Your task to perform on an android device: Clear all items from cart on amazon. Image 0: 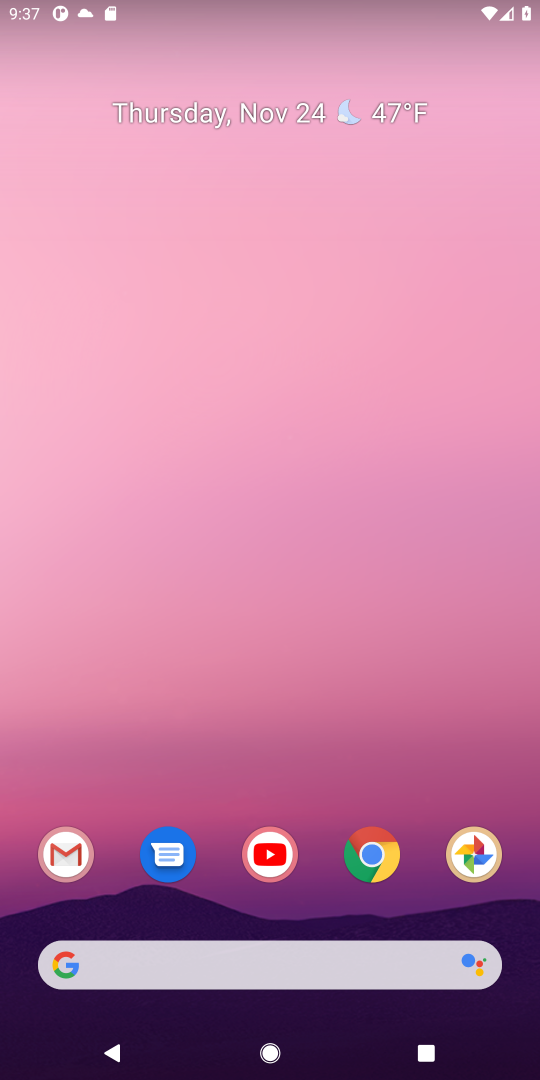
Step 0: click (372, 865)
Your task to perform on an android device: Clear all items from cart on amazon. Image 1: 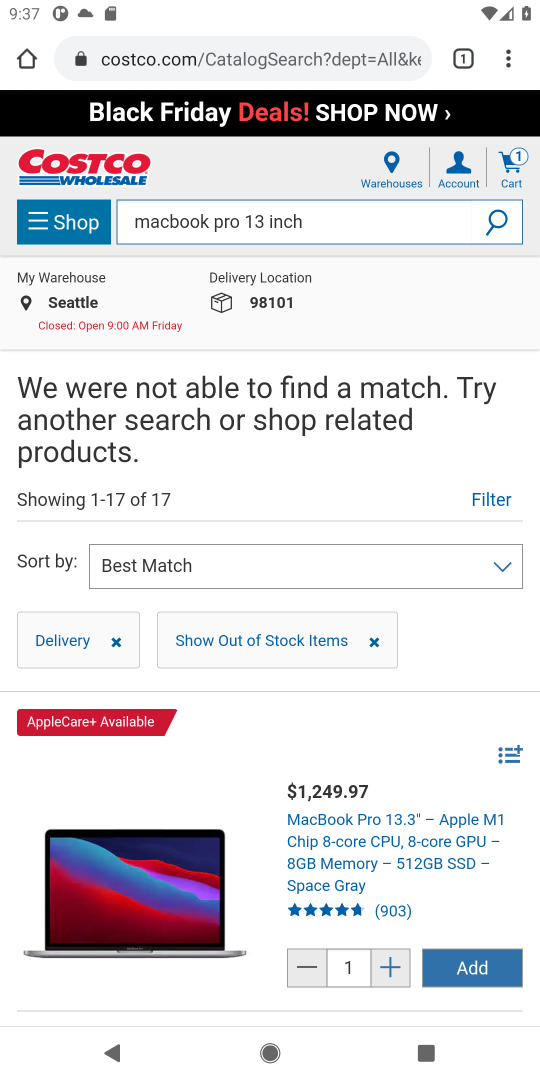
Step 1: click (214, 64)
Your task to perform on an android device: Clear all items from cart on amazon. Image 2: 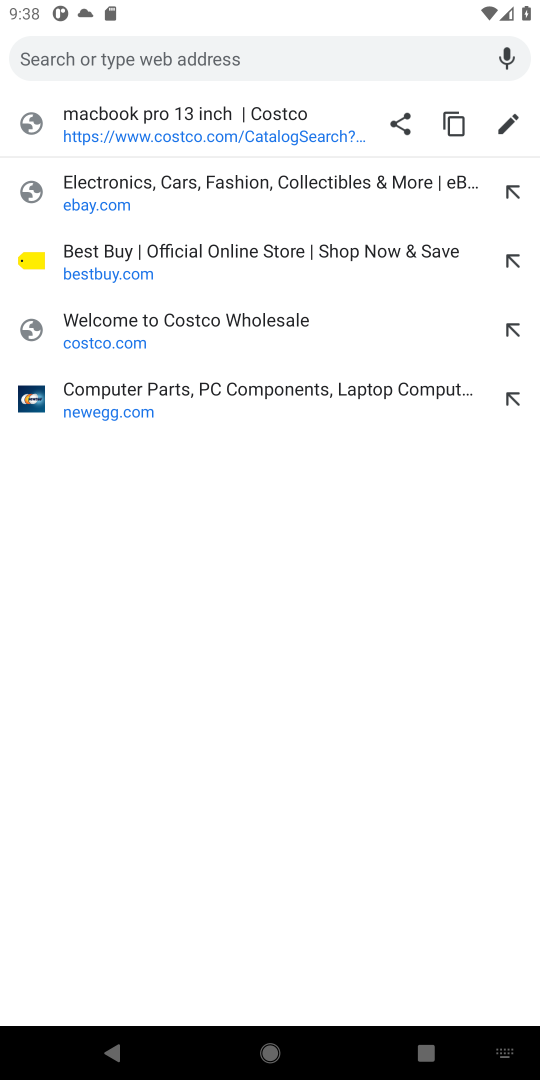
Step 2: type "amazon.com"
Your task to perform on an android device: Clear all items from cart on amazon. Image 3: 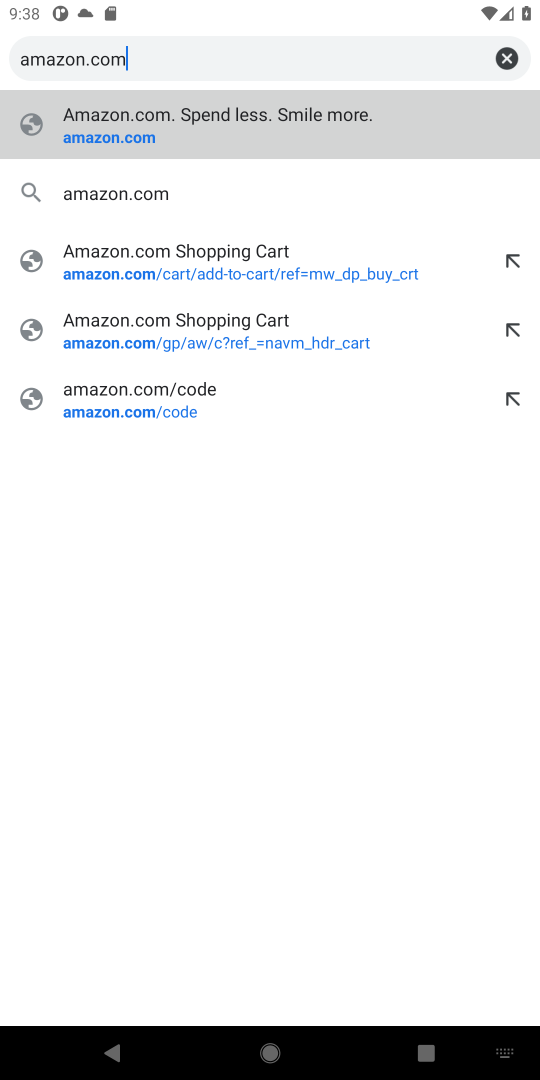
Step 3: click (102, 129)
Your task to perform on an android device: Clear all items from cart on amazon. Image 4: 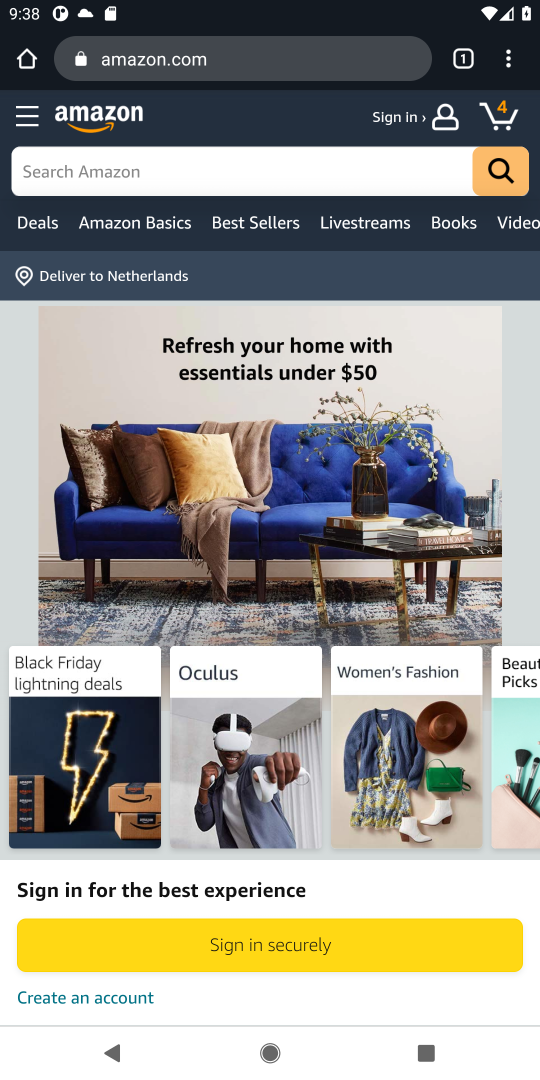
Step 4: click (499, 120)
Your task to perform on an android device: Clear all items from cart on amazon. Image 5: 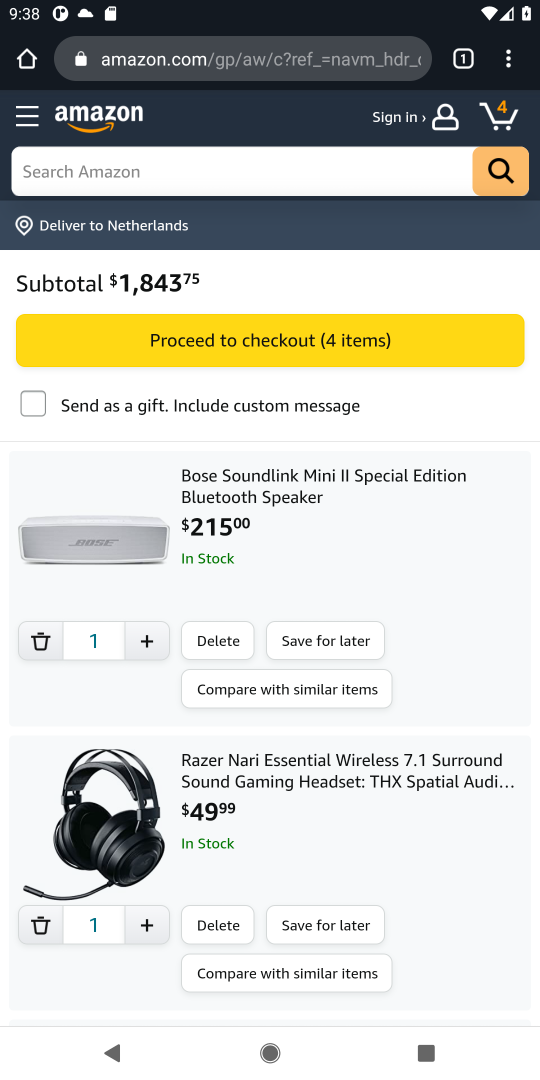
Step 5: click (204, 643)
Your task to perform on an android device: Clear all items from cart on amazon. Image 6: 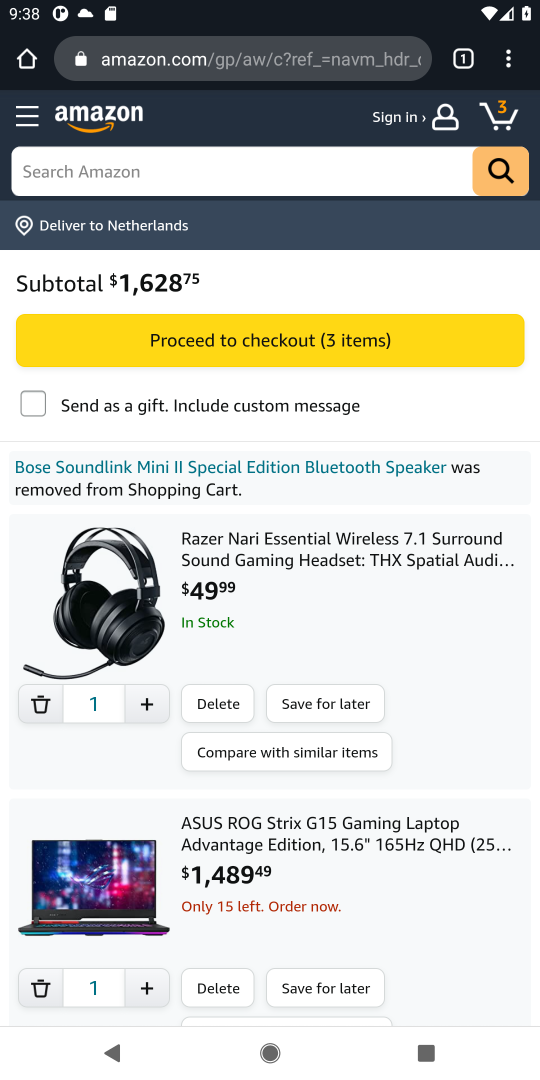
Step 6: click (220, 701)
Your task to perform on an android device: Clear all items from cart on amazon. Image 7: 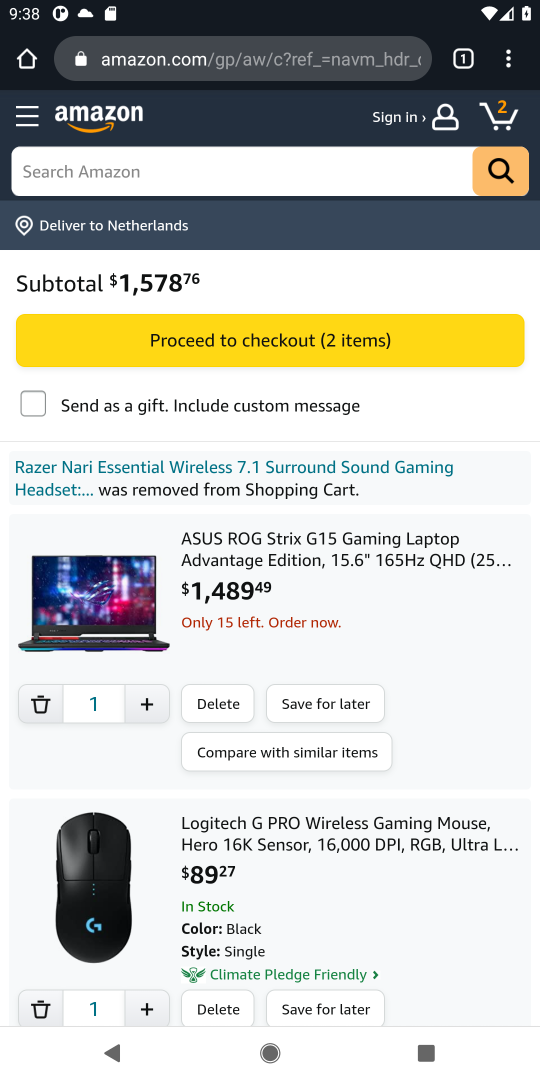
Step 7: click (220, 701)
Your task to perform on an android device: Clear all items from cart on amazon. Image 8: 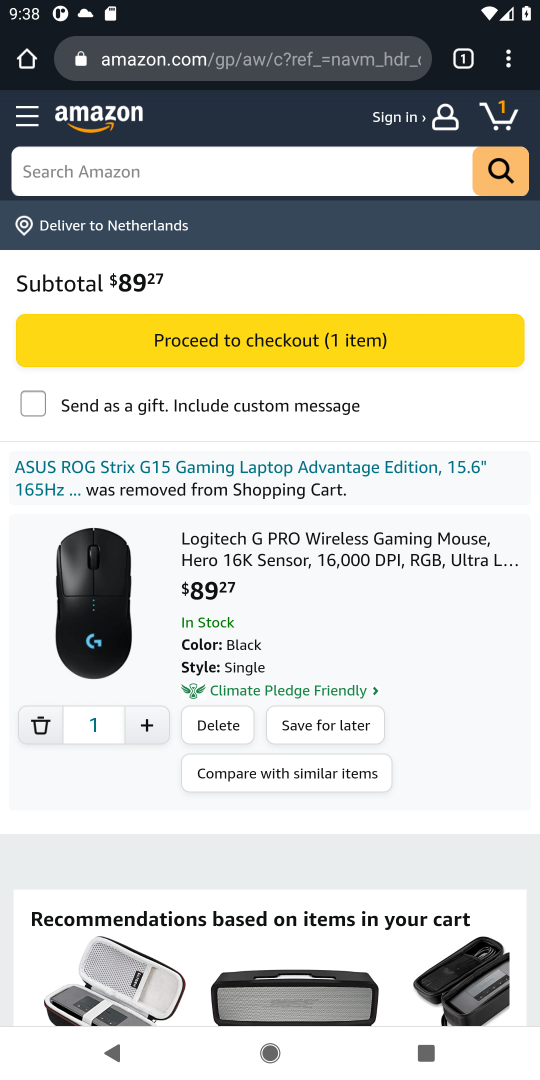
Step 8: click (217, 720)
Your task to perform on an android device: Clear all items from cart on amazon. Image 9: 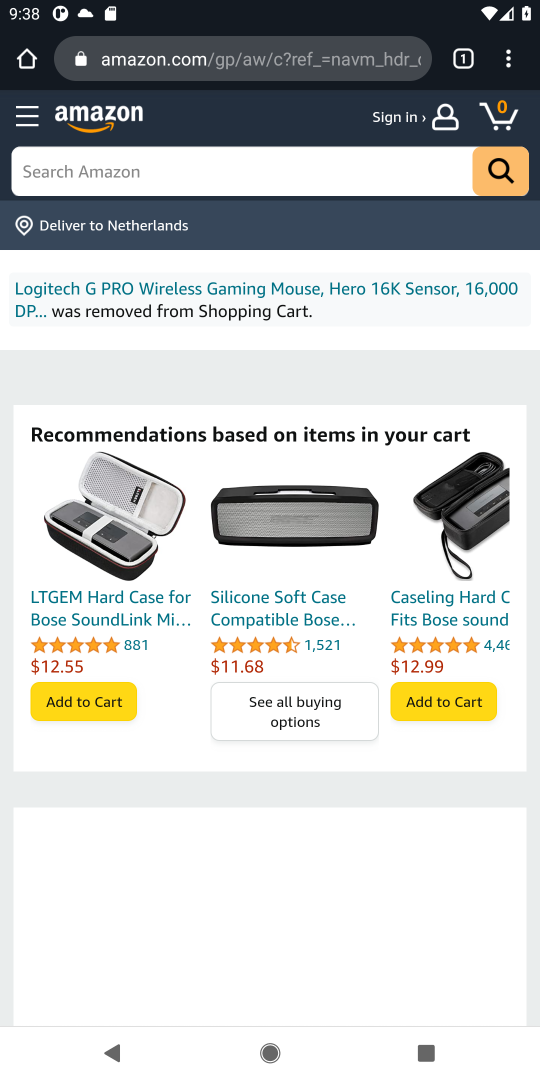
Step 9: task complete